Your task to perform on an android device: visit the assistant section in the google photos Image 0: 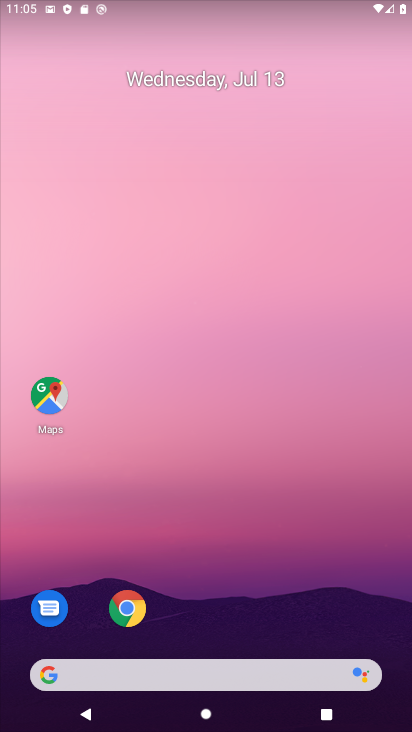
Step 0: drag from (275, 608) to (327, 12)
Your task to perform on an android device: visit the assistant section in the google photos Image 1: 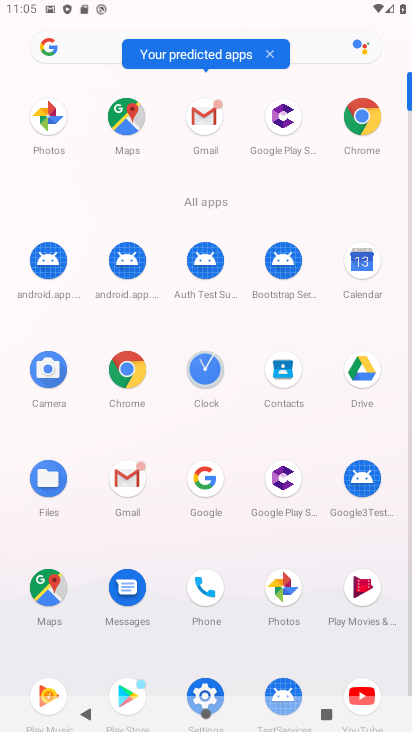
Step 1: click (299, 590)
Your task to perform on an android device: visit the assistant section in the google photos Image 2: 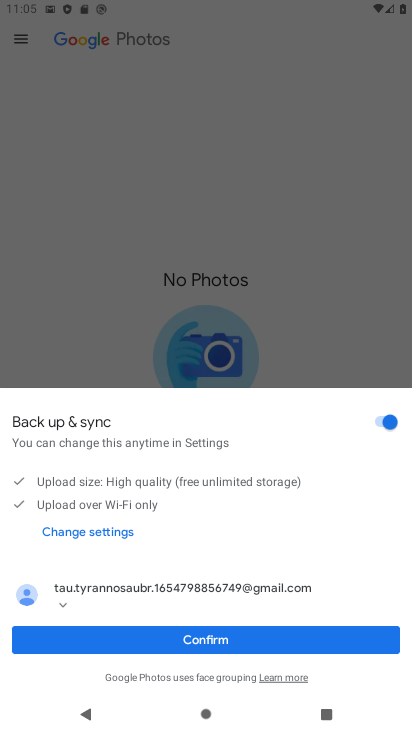
Step 2: click (265, 632)
Your task to perform on an android device: visit the assistant section in the google photos Image 3: 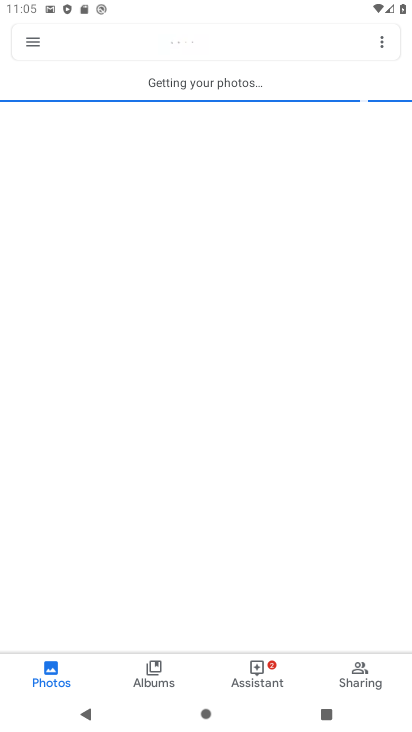
Step 3: click (260, 672)
Your task to perform on an android device: visit the assistant section in the google photos Image 4: 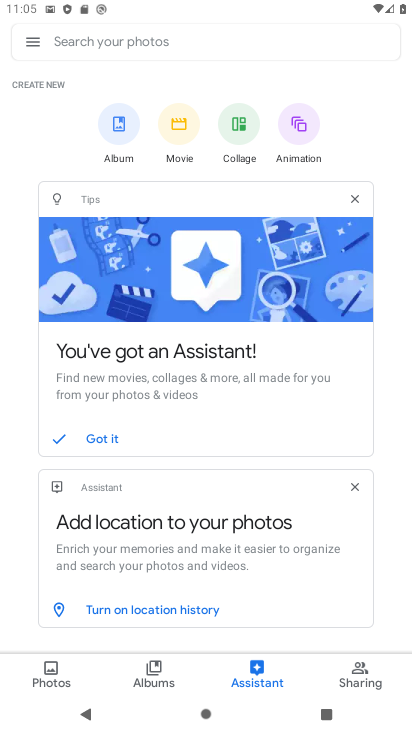
Step 4: task complete